Your task to perform on an android device: check data usage Image 0: 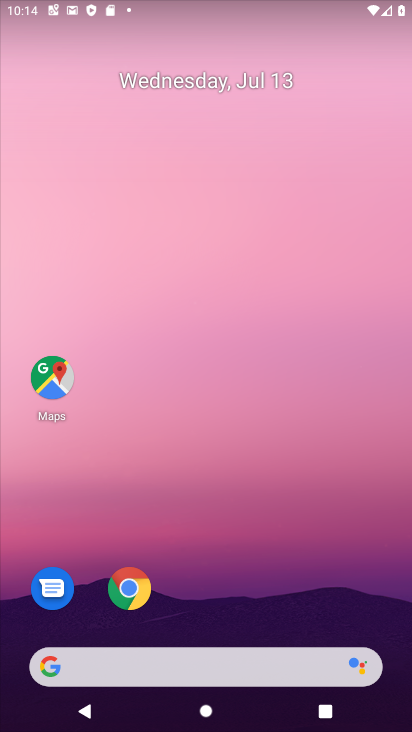
Step 0: drag from (199, 634) to (219, 69)
Your task to perform on an android device: check data usage Image 1: 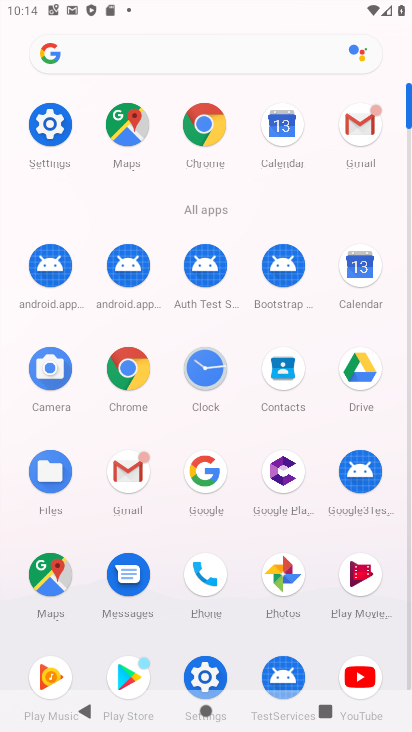
Step 1: click (49, 127)
Your task to perform on an android device: check data usage Image 2: 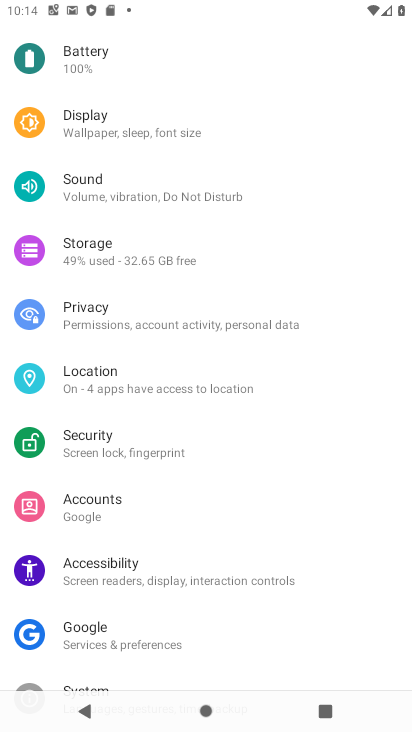
Step 2: drag from (110, 197) to (127, 723)
Your task to perform on an android device: check data usage Image 3: 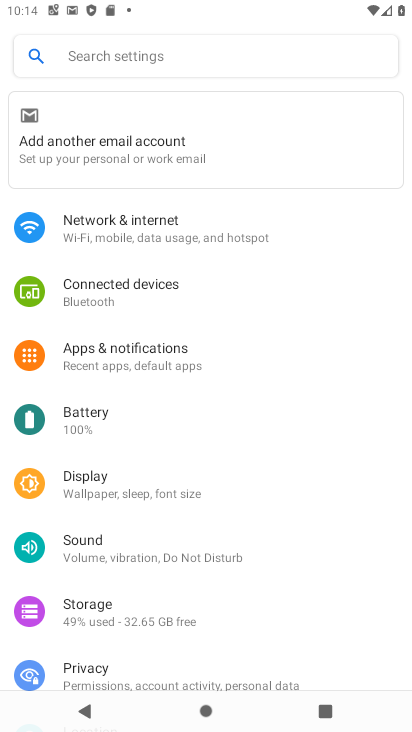
Step 3: click (99, 228)
Your task to perform on an android device: check data usage Image 4: 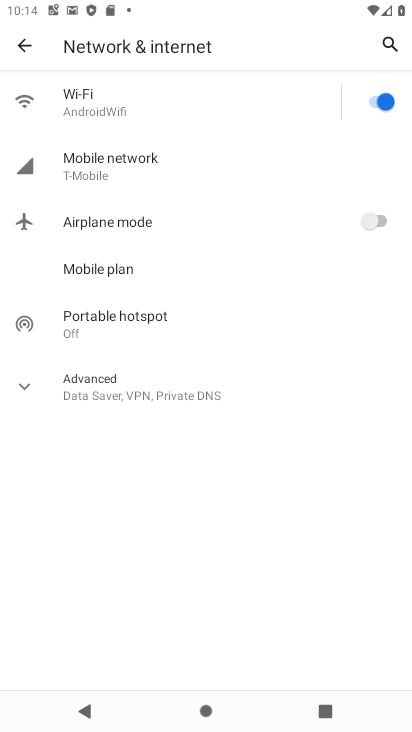
Step 4: click (116, 180)
Your task to perform on an android device: check data usage Image 5: 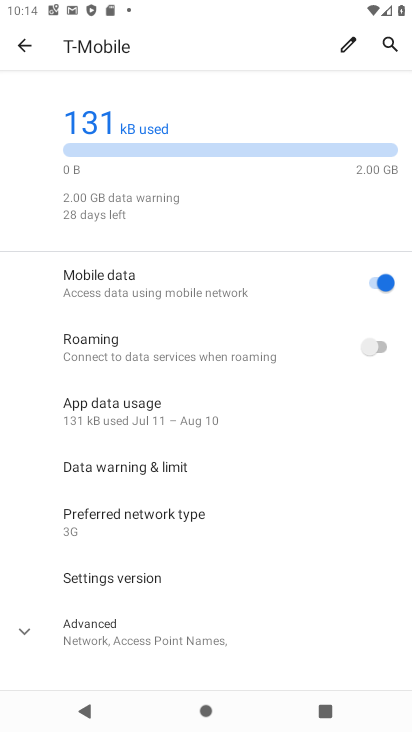
Step 5: drag from (145, 458) to (123, 104)
Your task to perform on an android device: check data usage Image 6: 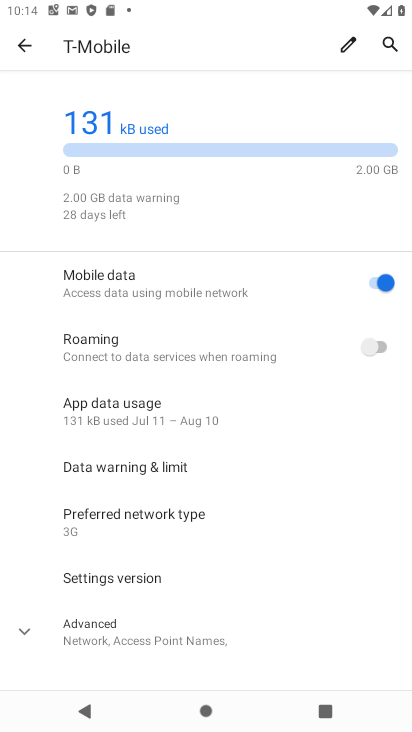
Step 6: click (120, 627)
Your task to perform on an android device: check data usage Image 7: 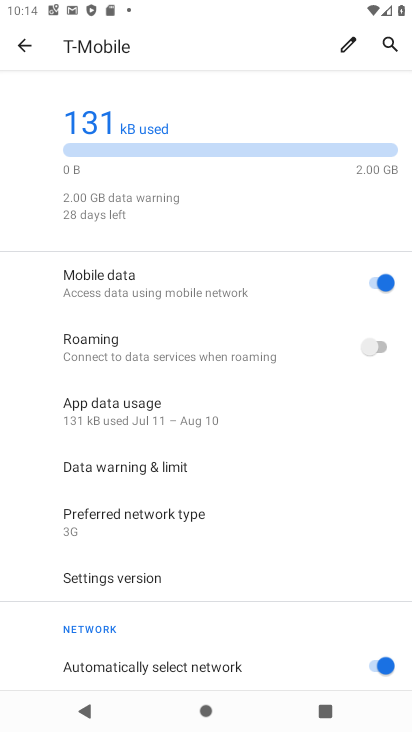
Step 7: task complete